Your task to perform on an android device: Open Maps and search for coffee Image 0: 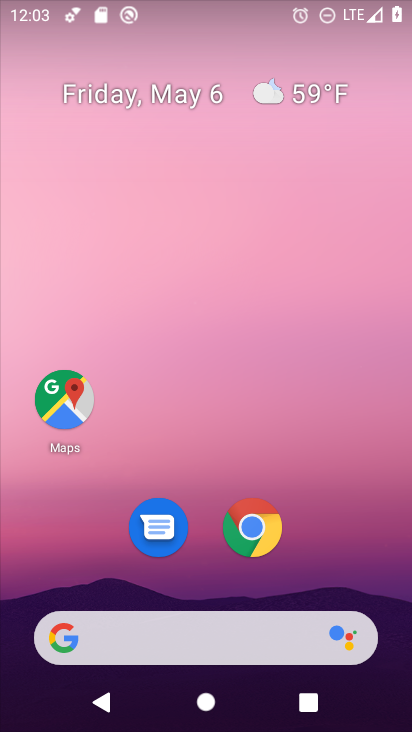
Step 0: click (54, 393)
Your task to perform on an android device: Open Maps and search for coffee Image 1: 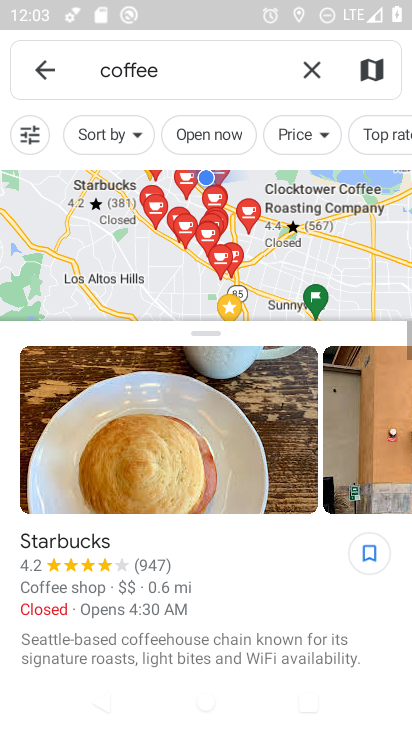
Step 1: task complete